Your task to perform on an android device: Open CNN.com Image 0: 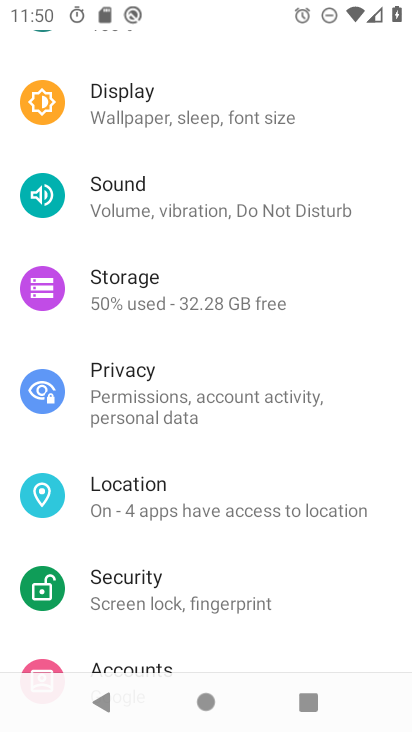
Step 0: press home button
Your task to perform on an android device: Open CNN.com Image 1: 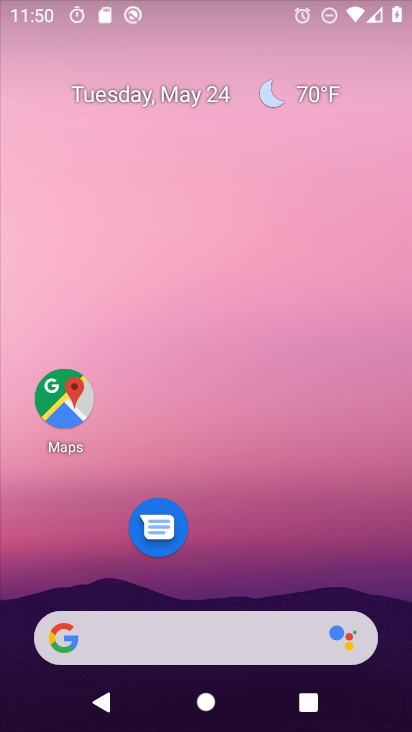
Step 1: drag from (225, 556) to (230, 107)
Your task to perform on an android device: Open CNN.com Image 2: 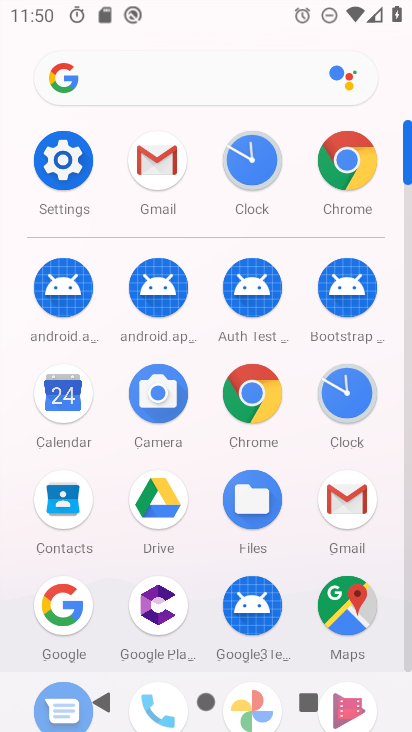
Step 2: click (68, 608)
Your task to perform on an android device: Open CNN.com Image 3: 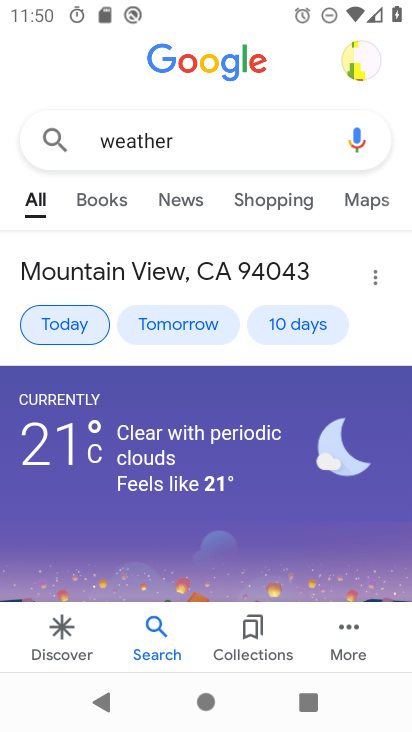
Step 3: click (231, 154)
Your task to perform on an android device: Open CNN.com Image 4: 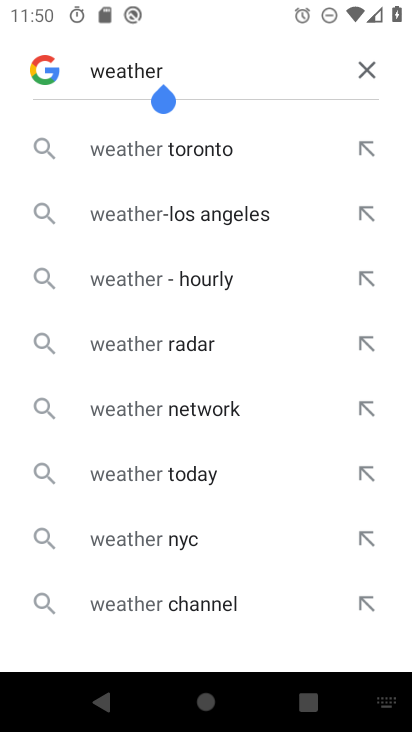
Step 4: click (361, 66)
Your task to perform on an android device: Open CNN.com Image 5: 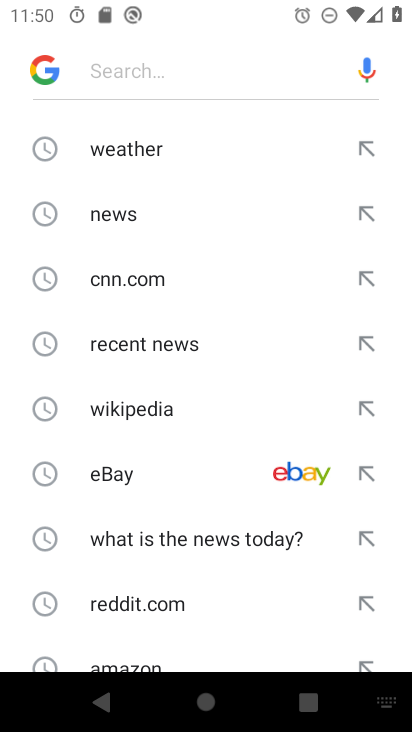
Step 5: click (115, 283)
Your task to perform on an android device: Open CNN.com Image 6: 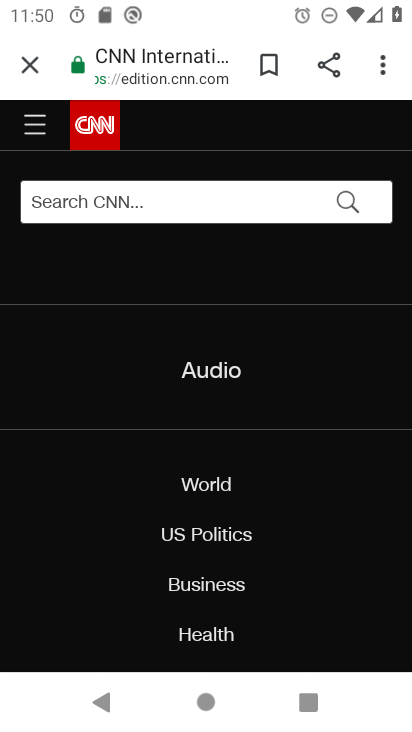
Step 6: task complete